Your task to perform on an android device: move a message to another label in the gmail app Image 0: 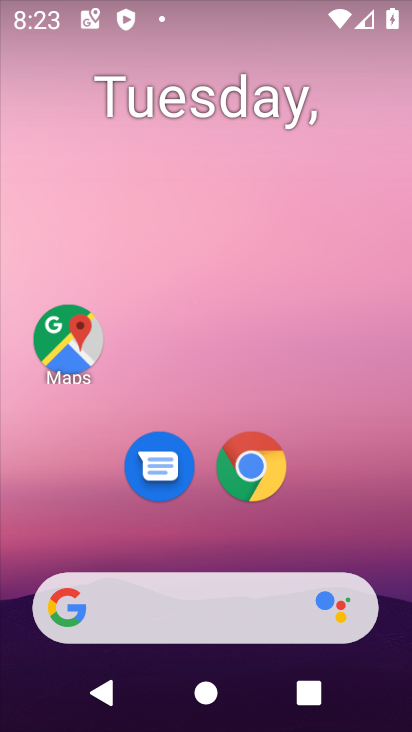
Step 0: drag from (199, 555) to (244, 136)
Your task to perform on an android device: move a message to another label in the gmail app Image 1: 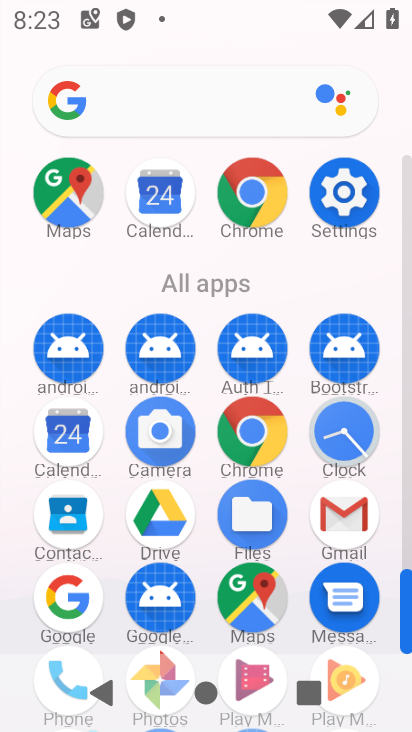
Step 1: click (347, 513)
Your task to perform on an android device: move a message to another label in the gmail app Image 2: 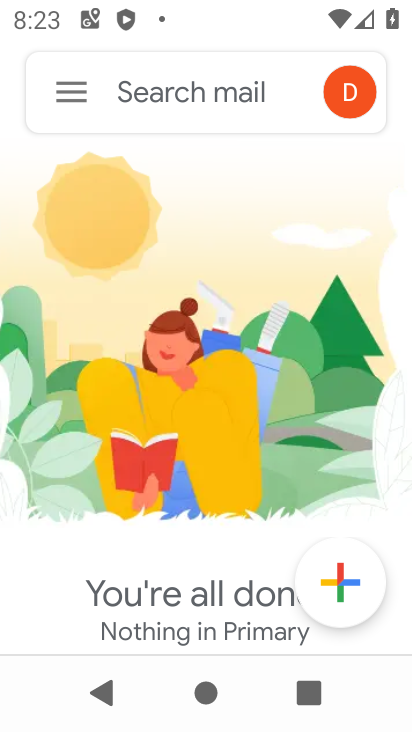
Step 2: click (67, 91)
Your task to perform on an android device: move a message to another label in the gmail app Image 3: 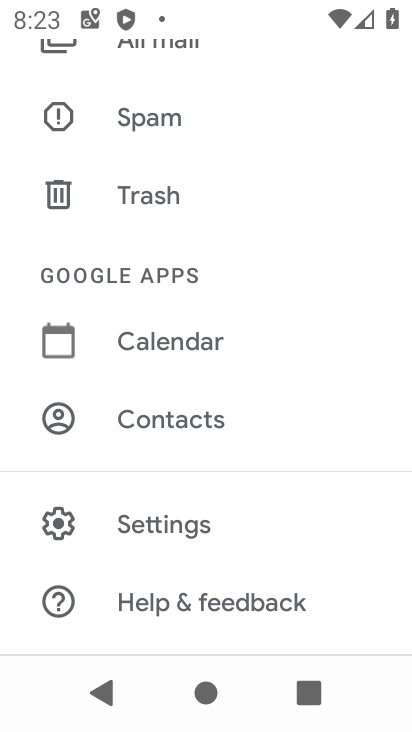
Step 3: drag from (186, 290) to (186, 574)
Your task to perform on an android device: move a message to another label in the gmail app Image 4: 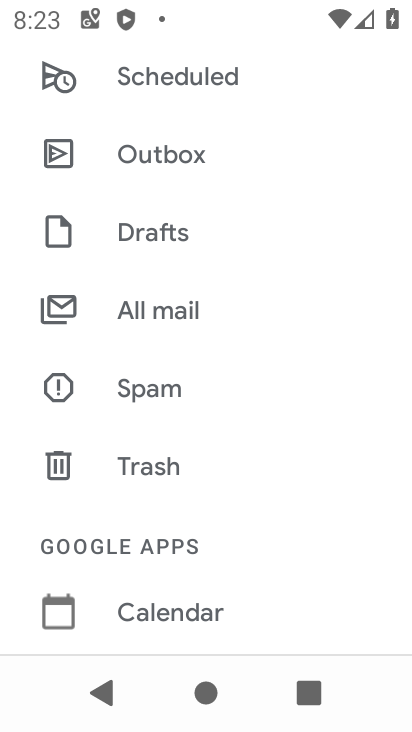
Step 4: click (176, 319)
Your task to perform on an android device: move a message to another label in the gmail app Image 5: 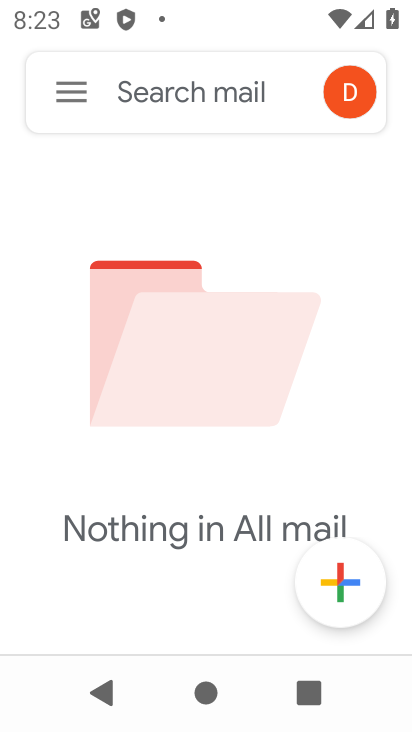
Step 5: task complete